Your task to perform on an android device: open device folders in google photos Image 0: 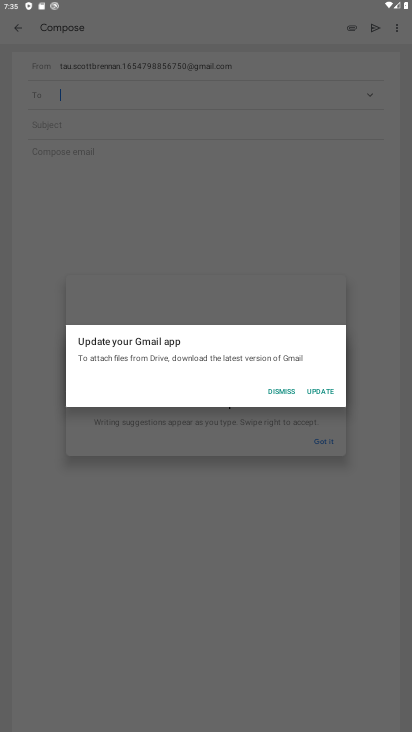
Step 0: press home button
Your task to perform on an android device: open device folders in google photos Image 1: 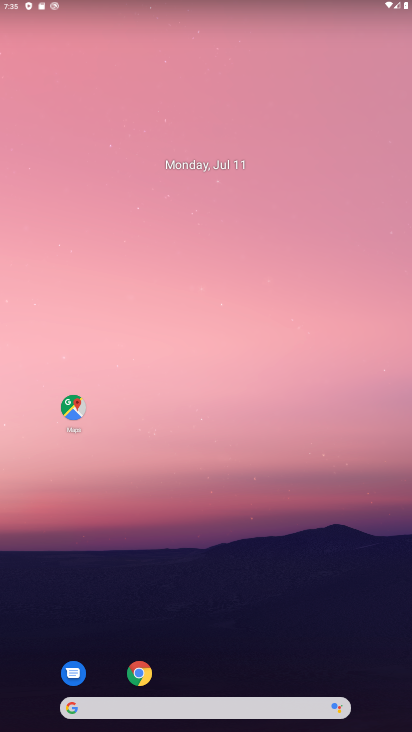
Step 1: drag from (244, 612) to (211, 77)
Your task to perform on an android device: open device folders in google photos Image 2: 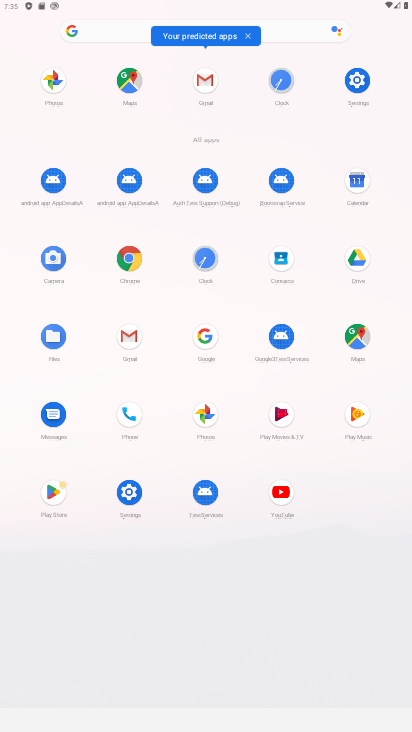
Step 2: click (53, 77)
Your task to perform on an android device: open device folders in google photos Image 3: 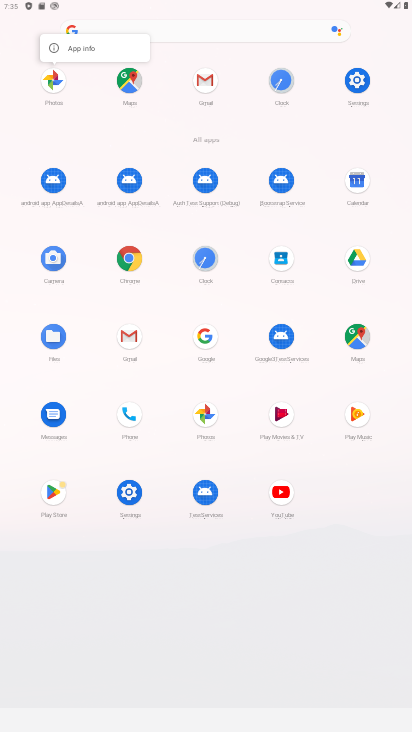
Step 3: click (61, 80)
Your task to perform on an android device: open device folders in google photos Image 4: 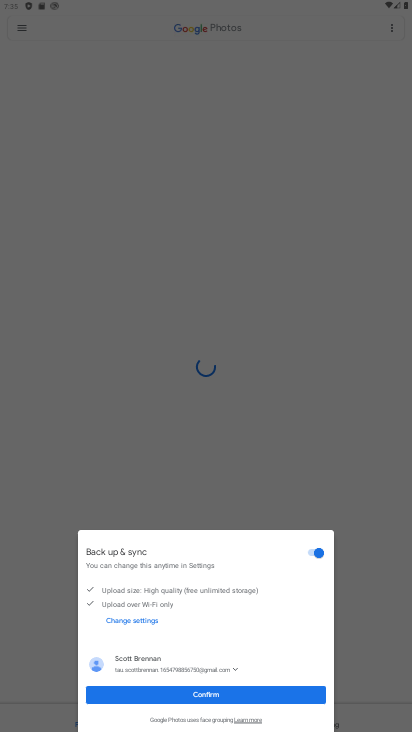
Step 4: click (265, 699)
Your task to perform on an android device: open device folders in google photos Image 5: 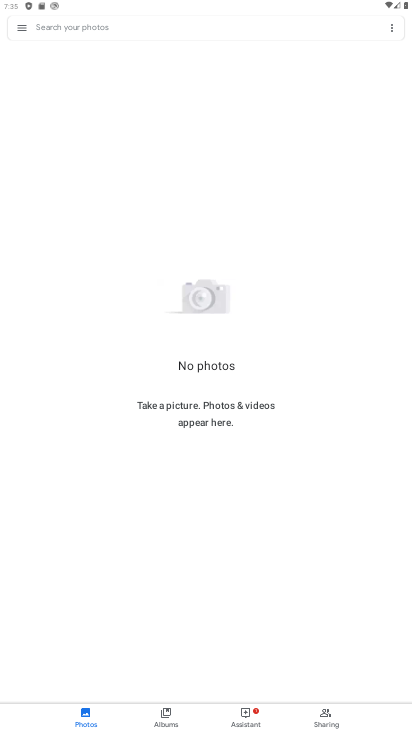
Step 5: click (25, 28)
Your task to perform on an android device: open device folders in google photos Image 6: 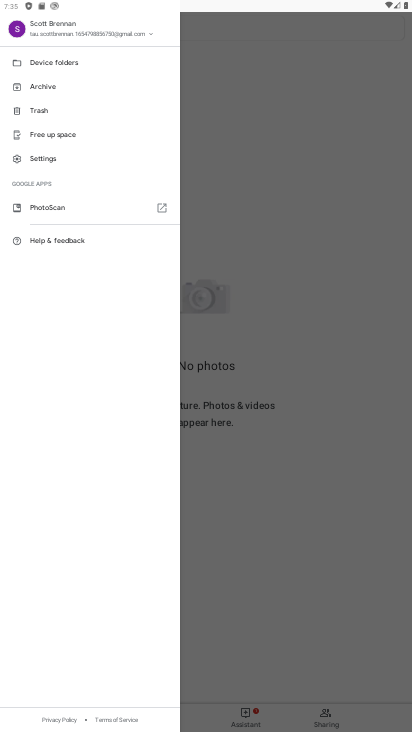
Step 6: click (55, 58)
Your task to perform on an android device: open device folders in google photos Image 7: 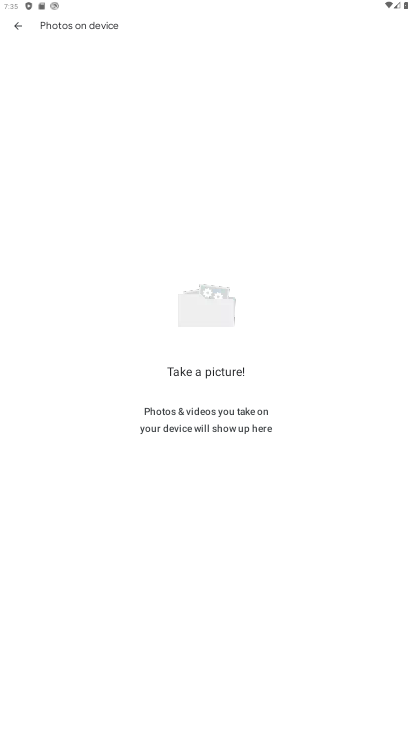
Step 7: task complete